Your task to perform on an android device: open app "Mercado Libre" Image 0: 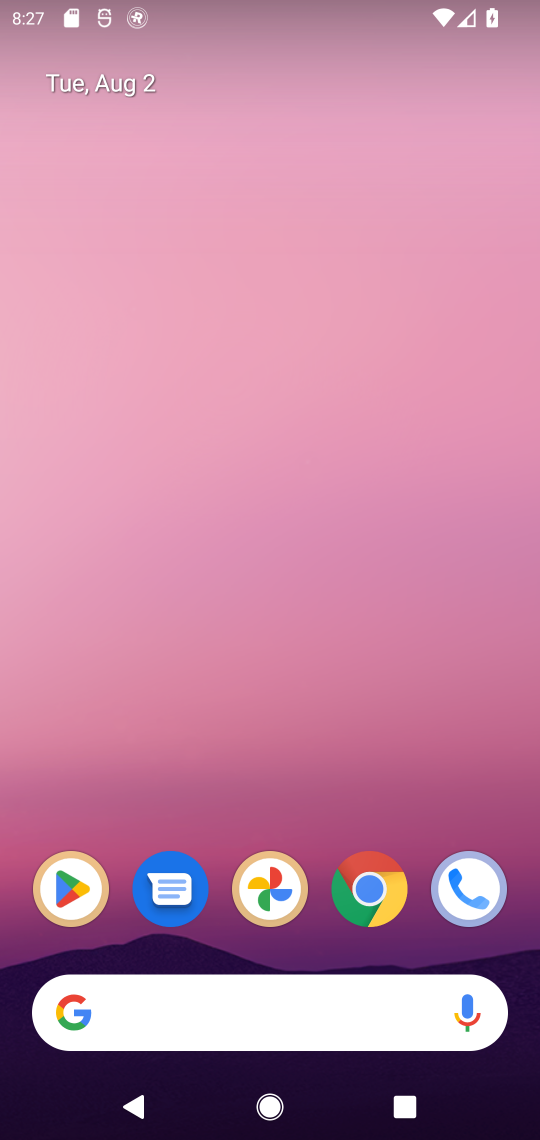
Step 0: click (68, 880)
Your task to perform on an android device: open app "Mercado Libre" Image 1: 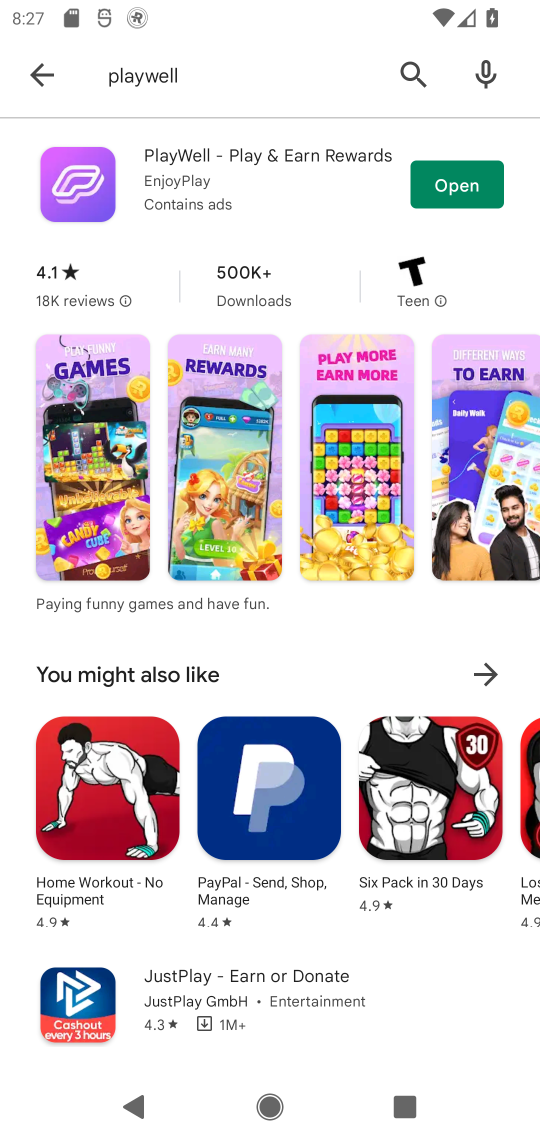
Step 1: click (415, 72)
Your task to perform on an android device: open app "Mercado Libre" Image 2: 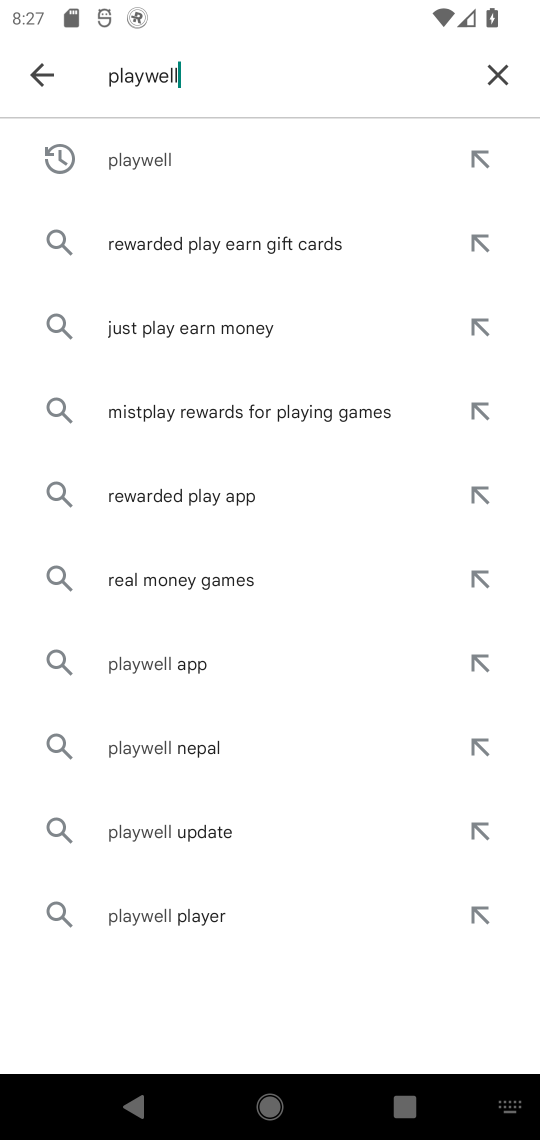
Step 2: click (496, 74)
Your task to perform on an android device: open app "Mercado Libre" Image 3: 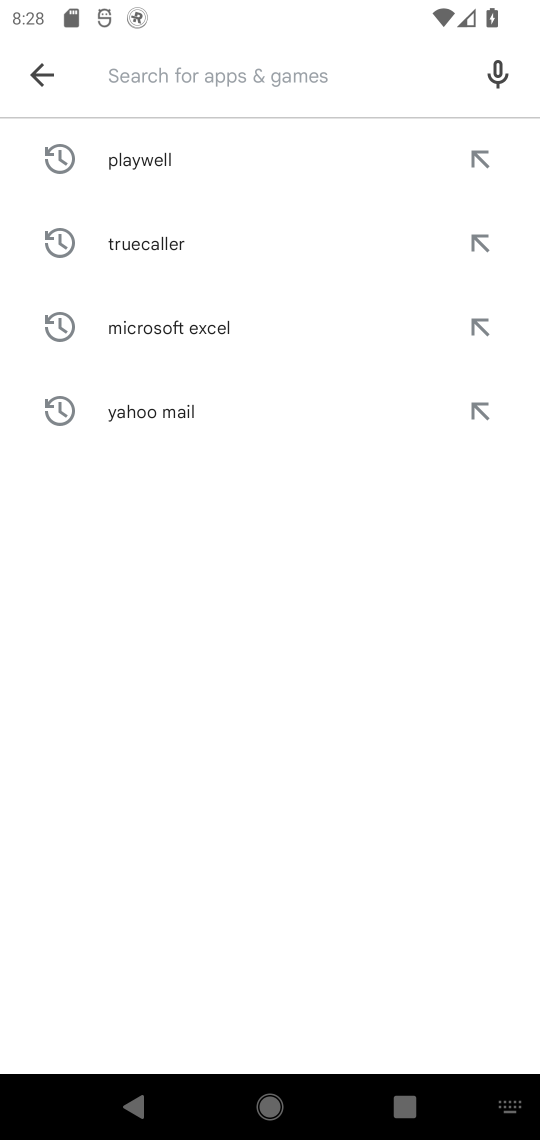
Step 3: type "Mercado Libre"
Your task to perform on an android device: open app "Mercado Libre" Image 4: 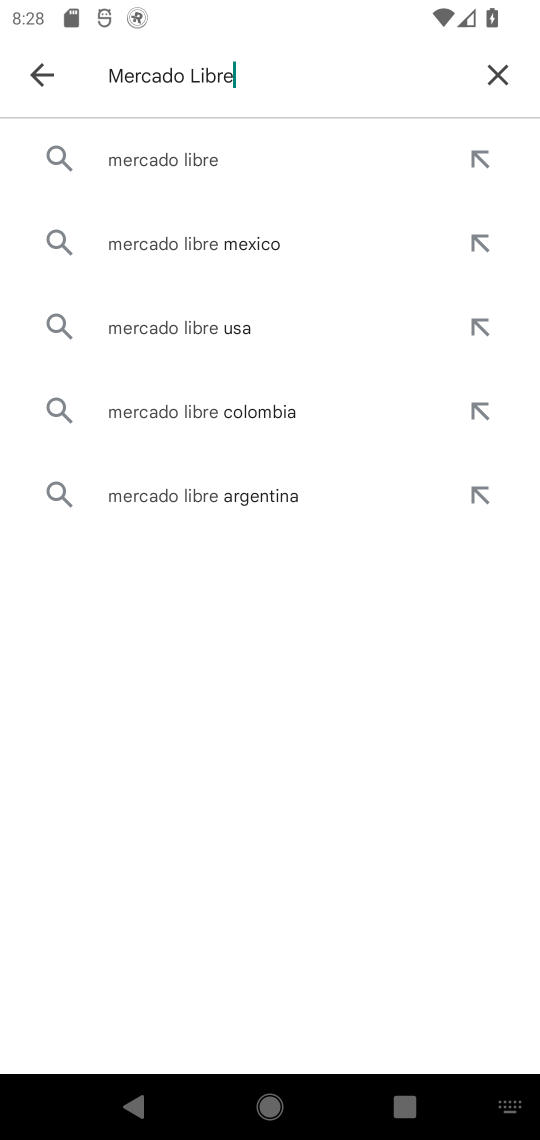
Step 4: click (152, 163)
Your task to perform on an android device: open app "Mercado Libre" Image 5: 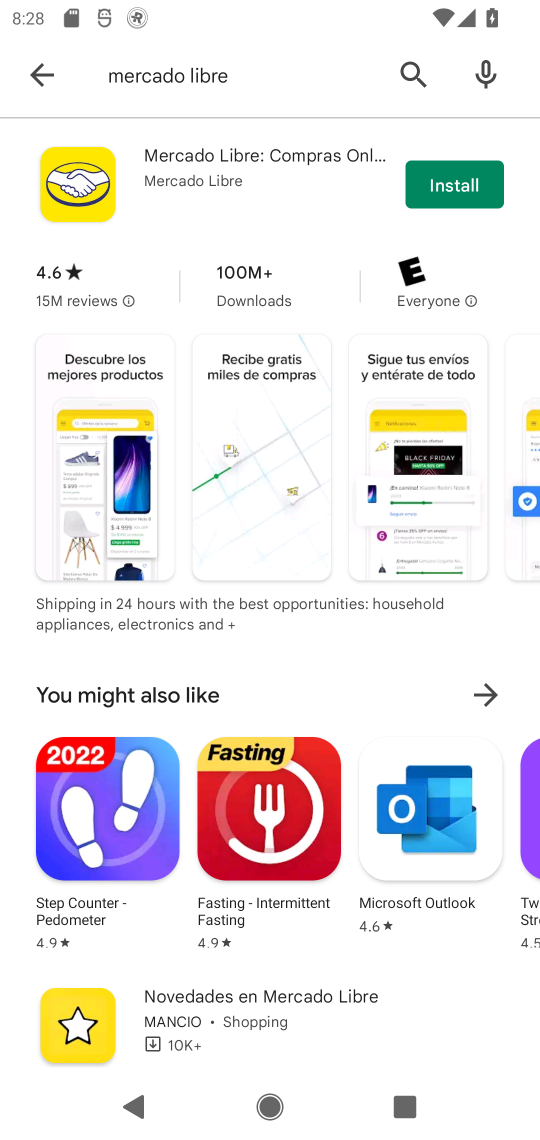
Step 5: task complete